Your task to perform on an android device: turn on improve location accuracy Image 0: 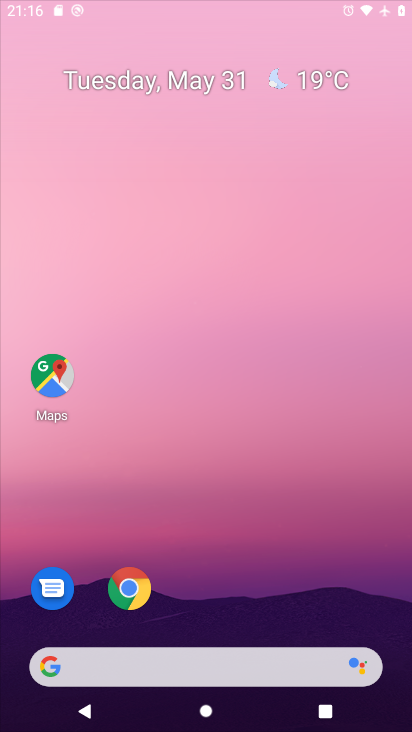
Step 0: press home button
Your task to perform on an android device: turn on improve location accuracy Image 1: 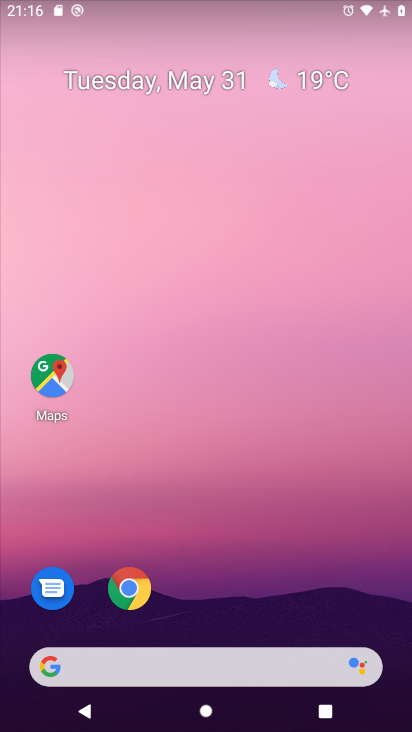
Step 1: drag from (160, 671) to (220, 85)
Your task to perform on an android device: turn on improve location accuracy Image 2: 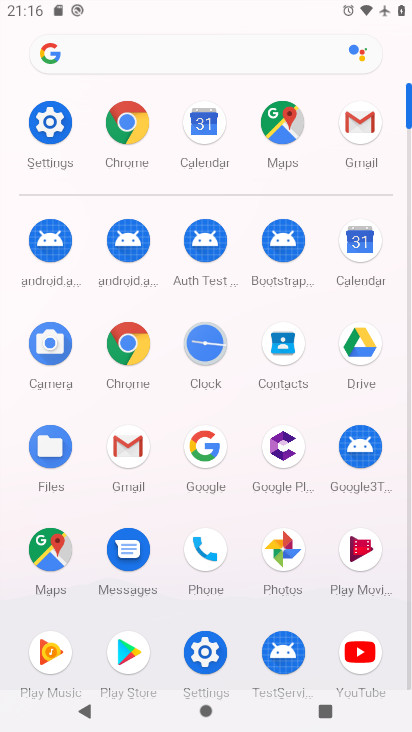
Step 2: click (43, 122)
Your task to perform on an android device: turn on improve location accuracy Image 3: 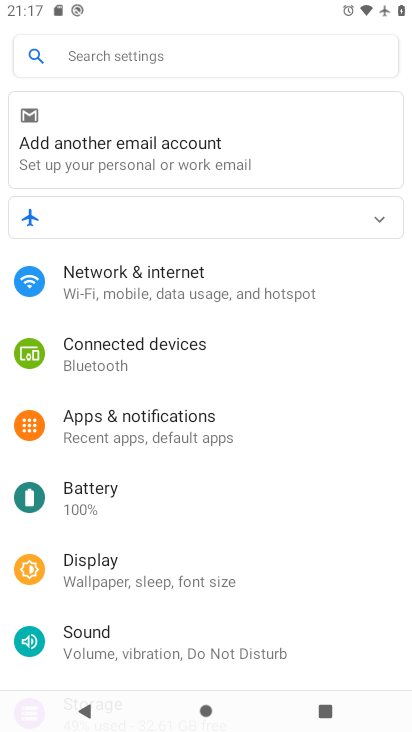
Step 3: drag from (253, 582) to (326, 306)
Your task to perform on an android device: turn on improve location accuracy Image 4: 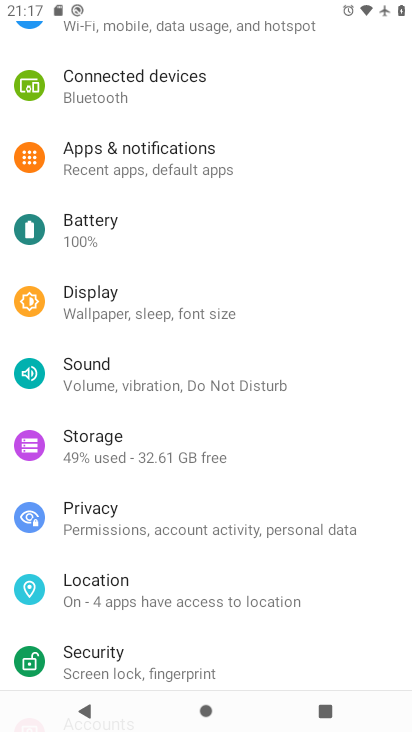
Step 4: click (110, 582)
Your task to perform on an android device: turn on improve location accuracy Image 5: 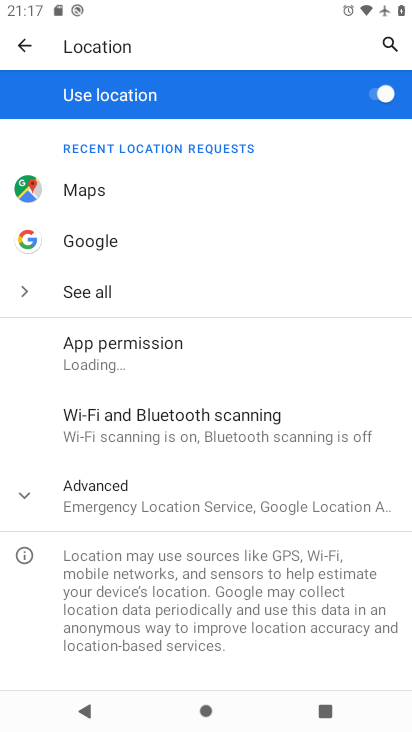
Step 5: click (119, 496)
Your task to perform on an android device: turn on improve location accuracy Image 6: 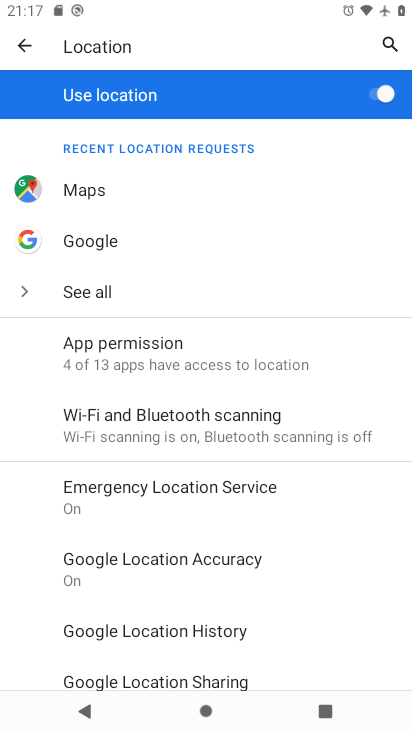
Step 6: click (137, 564)
Your task to perform on an android device: turn on improve location accuracy Image 7: 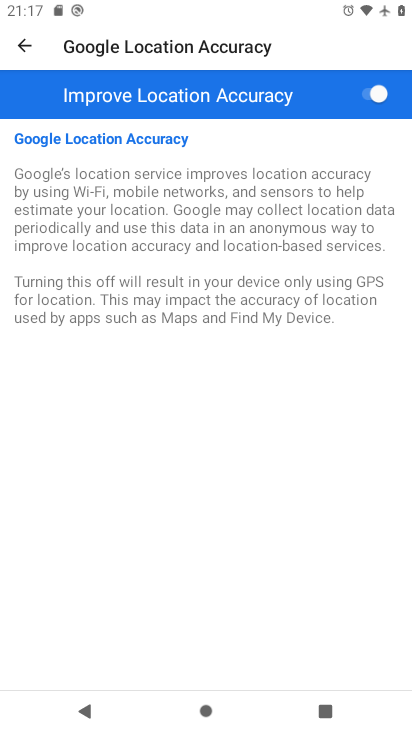
Step 7: task complete